Your task to perform on an android device: Open calendar and show me the second week of next month Image 0: 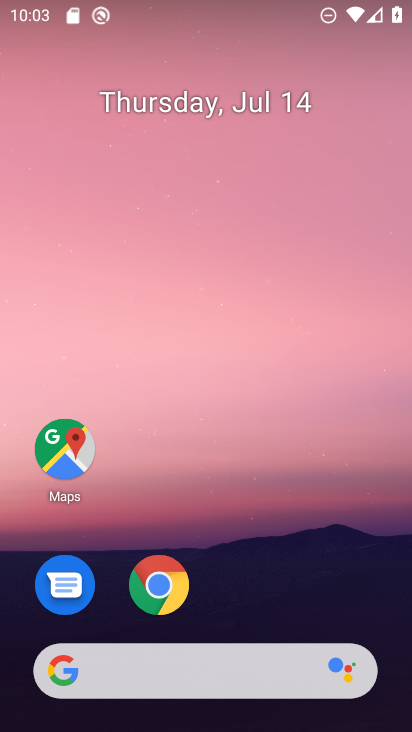
Step 0: drag from (250, 598) to (157, 99)
Your task to perform on an android device: Open calendar and show me the second week of next month Image 1: 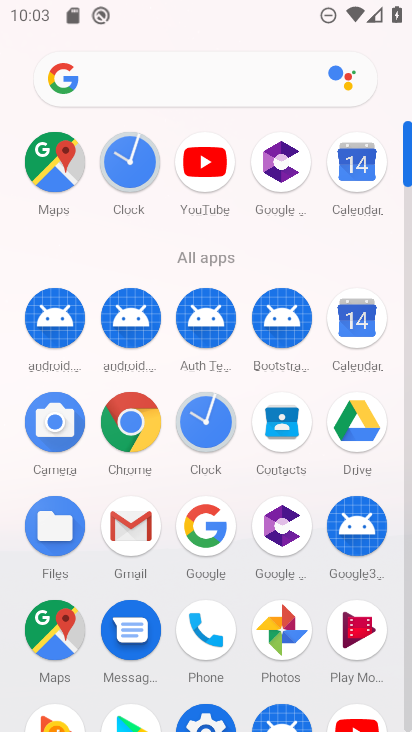
Step 1: click (336, 321)
Your task to perform on an android device: Open calendar and show me the second week of next month Image 2: 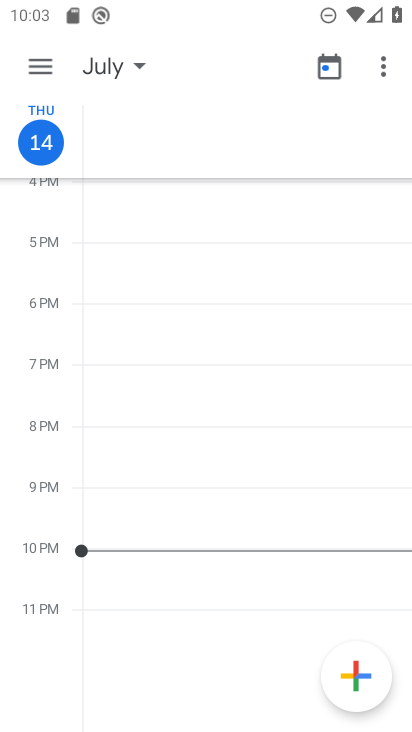
Step 2: click (334, 75)
Your task to perform on an android device: Open calendar and show me the second week of next month Image 3: 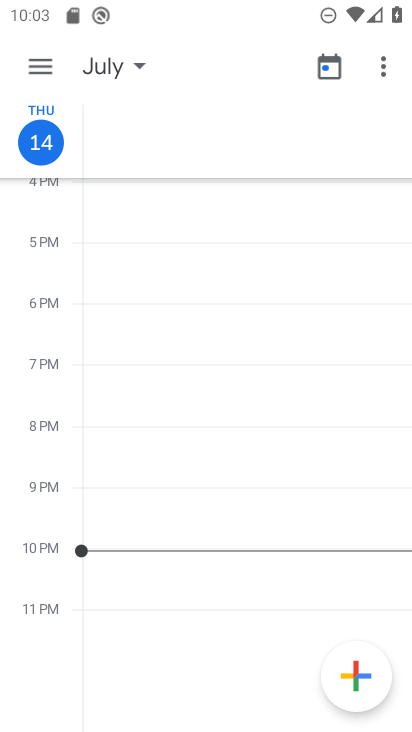
Step 3: click (46, 64)
Your task to perform on an android device: Open calendar and show me the second week of next month Image 4: 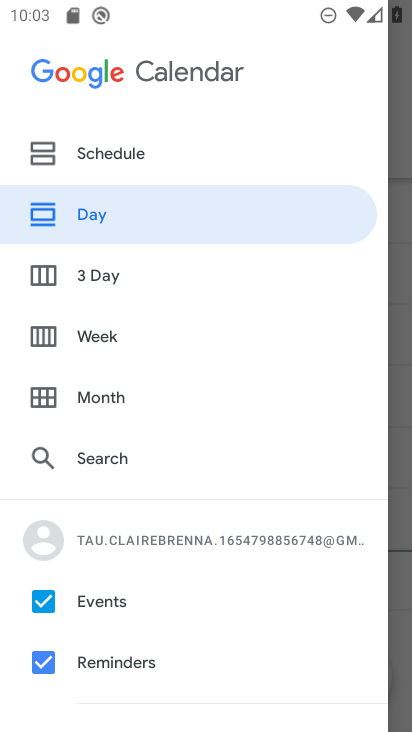
Step 4: click (113, 208)
Your task to perform on an android device: Open calendar and show me the second week of next month Image 5: 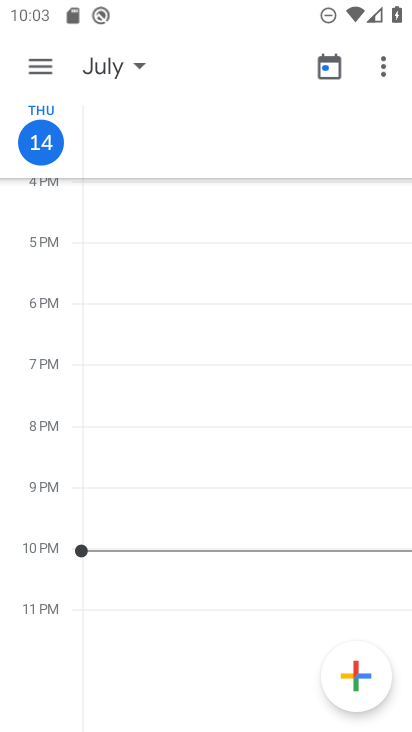
Step 5: click (98, 71)
Your task to perform on an android device: Open calendar and show me the second week of next month Image 6: 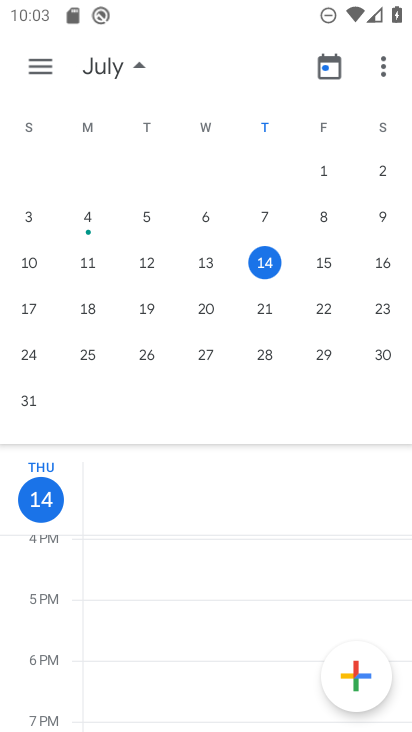
Step 6: drag from (270, 278) to (9, 271)
Your task to perform on an android device: Open calendar and show me the second week of next month Image 7: 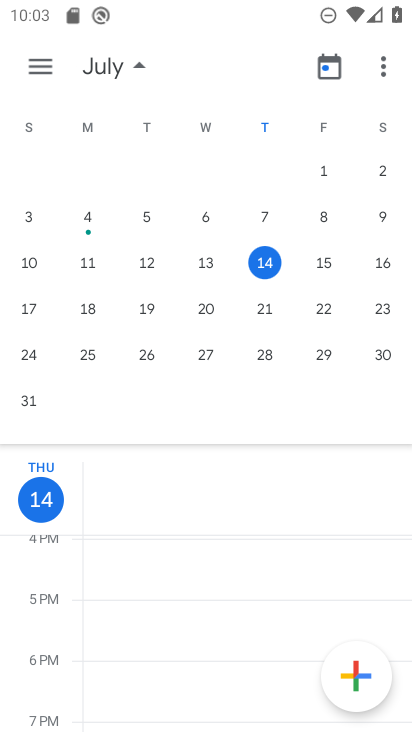
Step 7: drag from (389, 342) to (18, 304)
Your task to perform on an android device: Open calendar and show me the second week of next month Image 8: 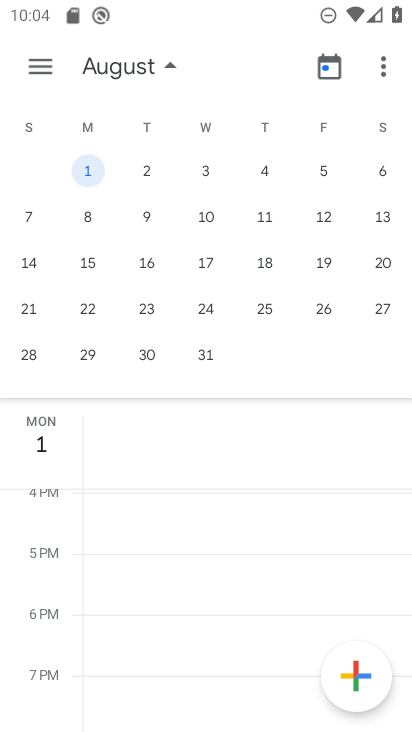
Step 8: click (89, 313)
Your task to perform on an android device: Open calendar and show me the second week of next month Image 9: 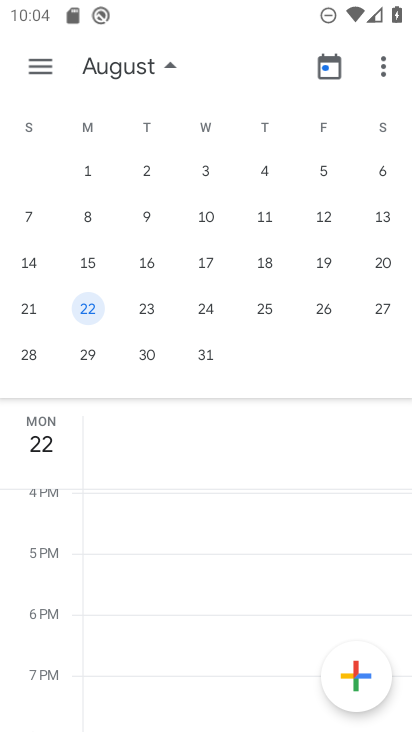
Step 9: click (36, 61)
Your task to perform on an android device: Open calendar and show me the second week of next month Image 10: 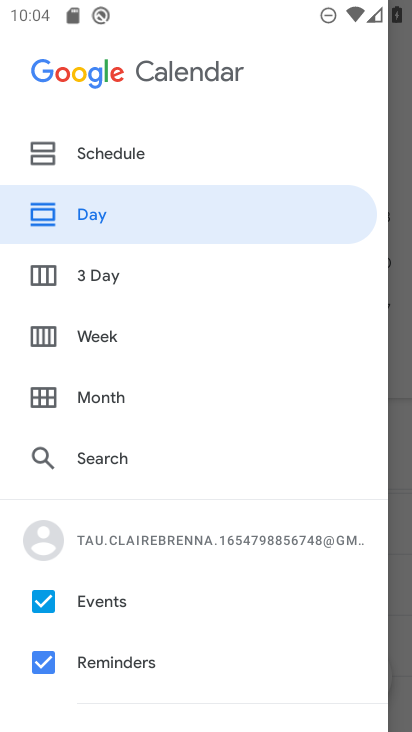
Step 10: click (62, 341)
Your task to perform on an android device: Open calendar and show me the second week of next month Image 11: 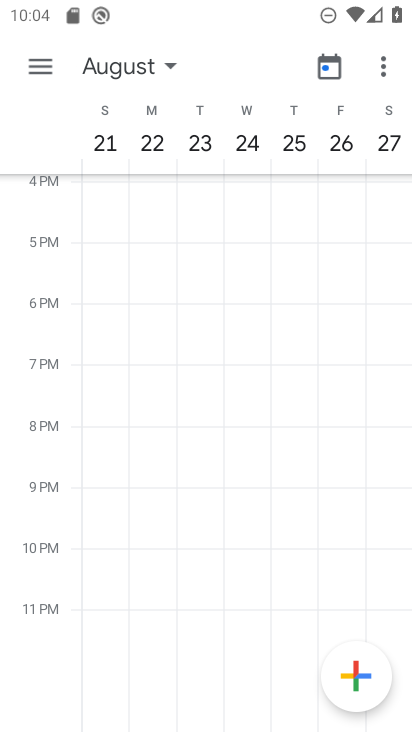
Step 11: task complete